Your task to perform on an android device: Find the nearest electronics store that's open Image 0: 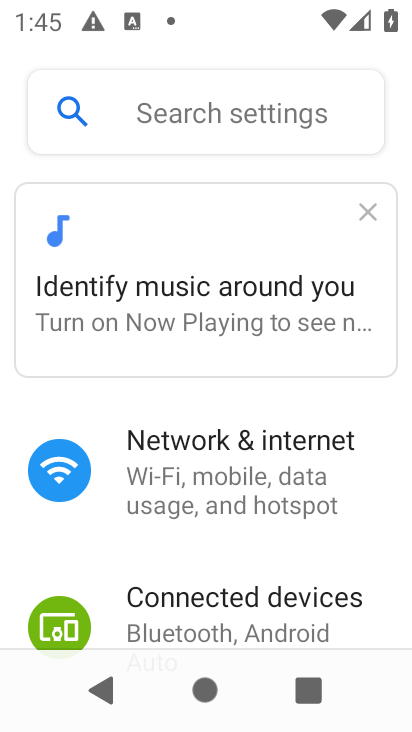
Step 0: press home button
Your task to perform on an android device: Find the nearest electronics store that's open Image 1: 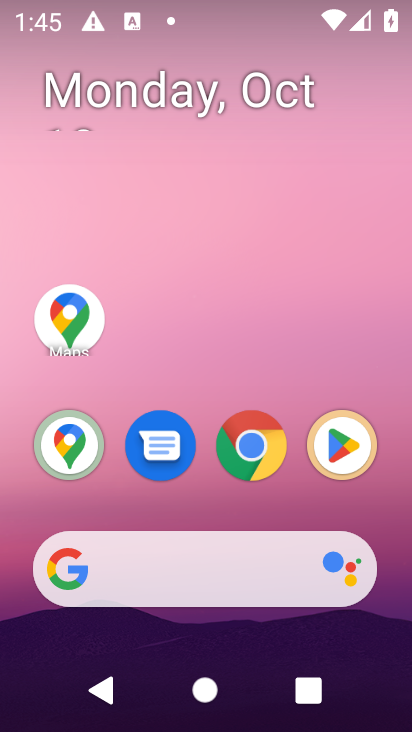
Step 1: click (69, 569)
Your task to perform on an android device: Find the nearest electronics store that's open Image 2: 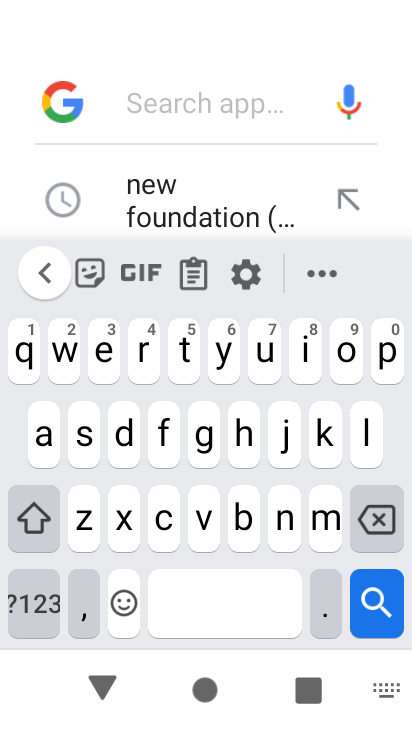
Step 2: click (187, 108)
Your task to perform on an android device: Find the nearest electronics store that's open Image 3: 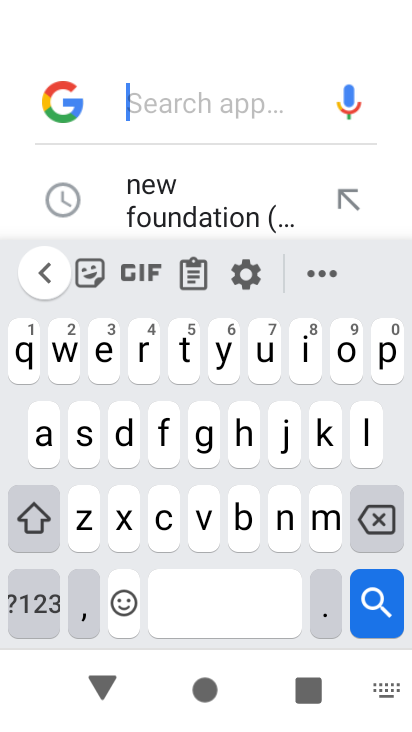
Step 3: type "nearest electronics store thats open"
Your task to perform on an android device: Find the nearest electronics store that's open Image 4: 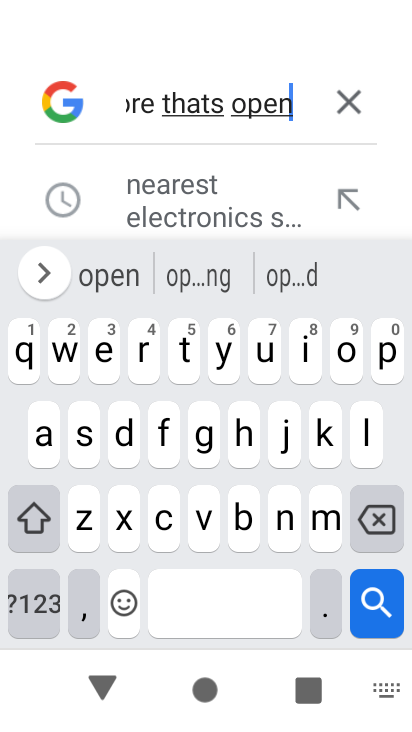
Step 4: click (151, 186)
Your task to perform on an android device: Find the nearest electronics store that's open Image 5: 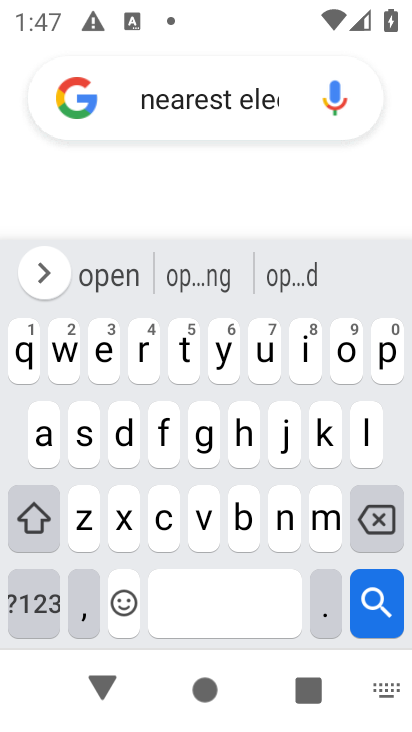
Step 5: task complete